Your task to perform on an android device: Install the Yahoo app Image 0: 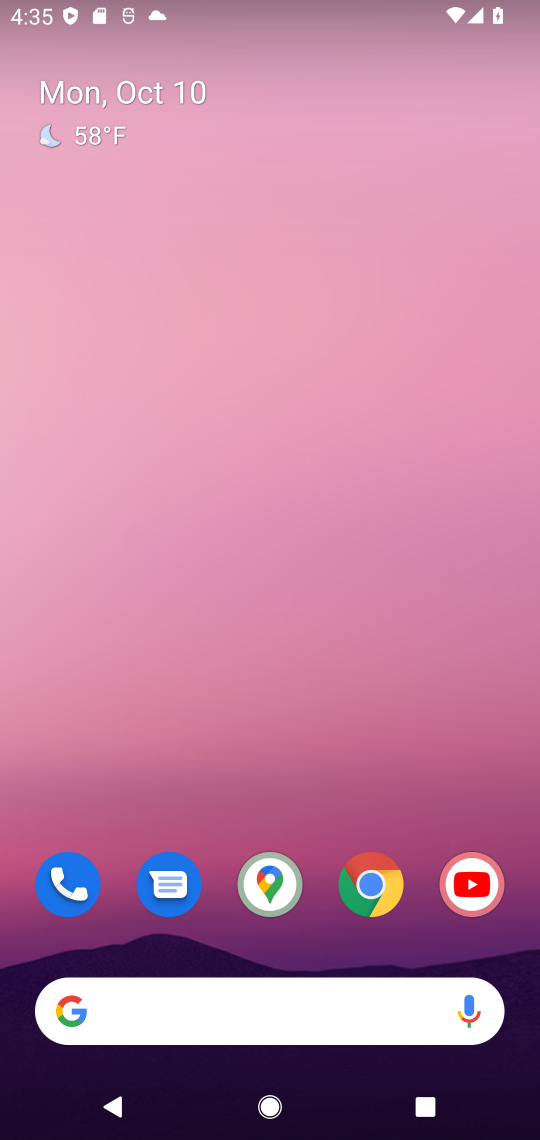
Step 0: drag from (415, 906) to (373, 100)
Your task to perform on an android device: Install the Yahoo app Image 1: 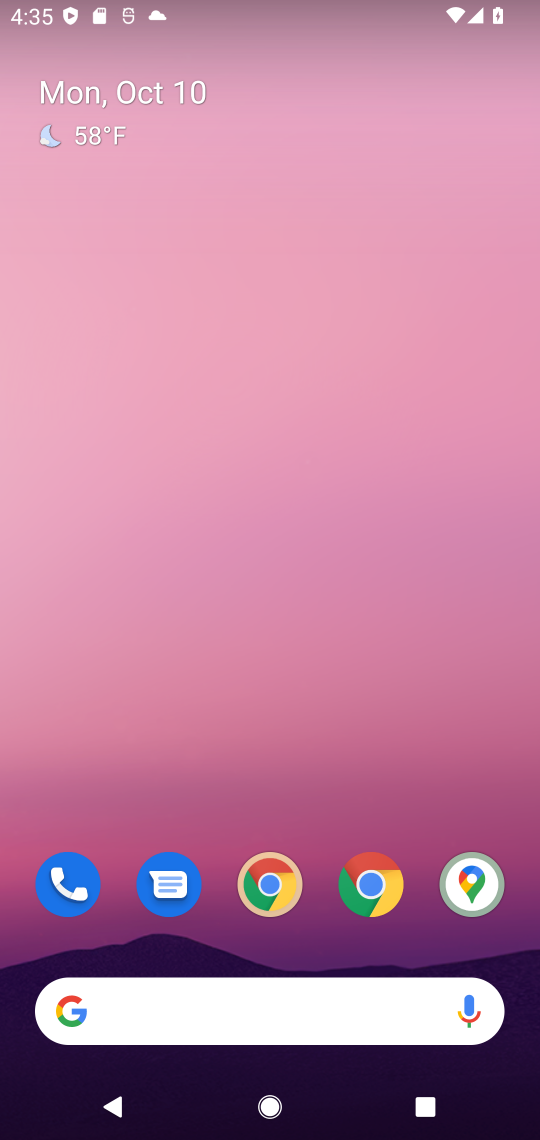
Step 1: drag from (444, 778) to (409, 280)
Your task to perform on an android device: Install the Yahoo app Image 2: 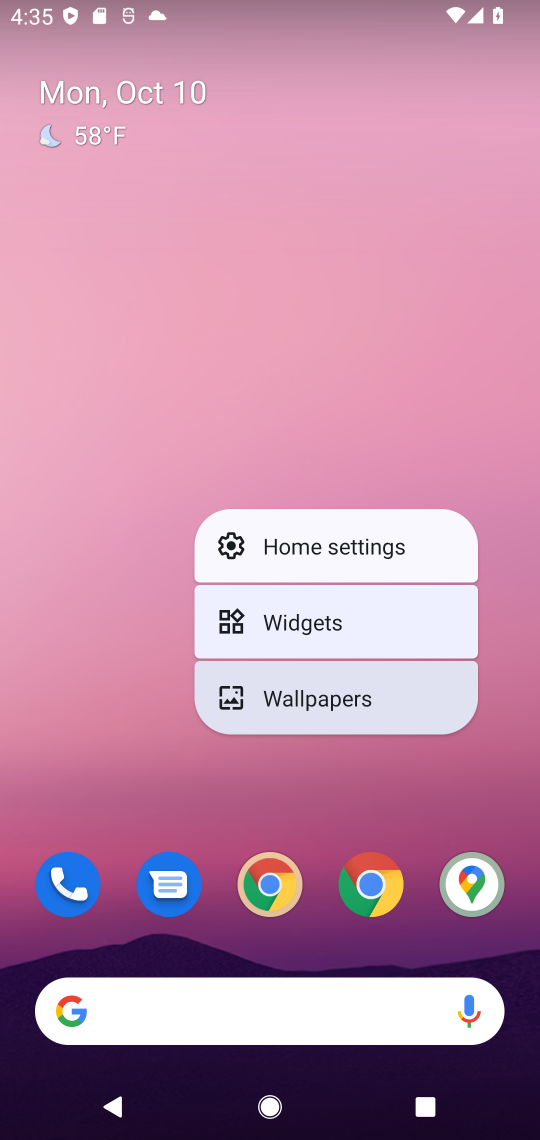
Step 2: click (501, 694)
Your task to perform on an android device: Install the Yahoo app Image 3: 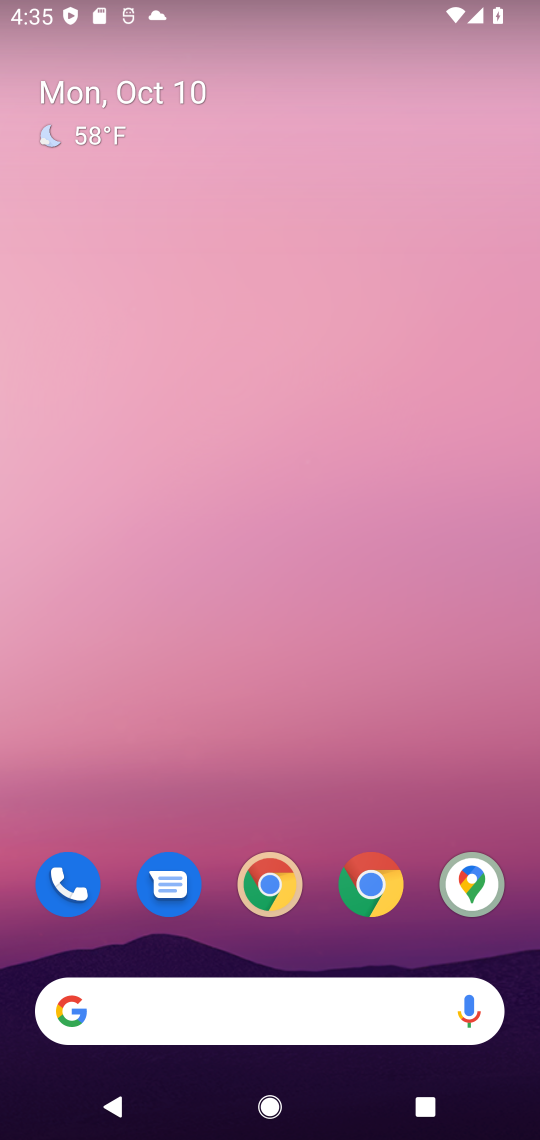
Step 3: drag from (497, 737) to (311, 58)
Your task to perform on an android device: Install the Yahoo app Image 4: 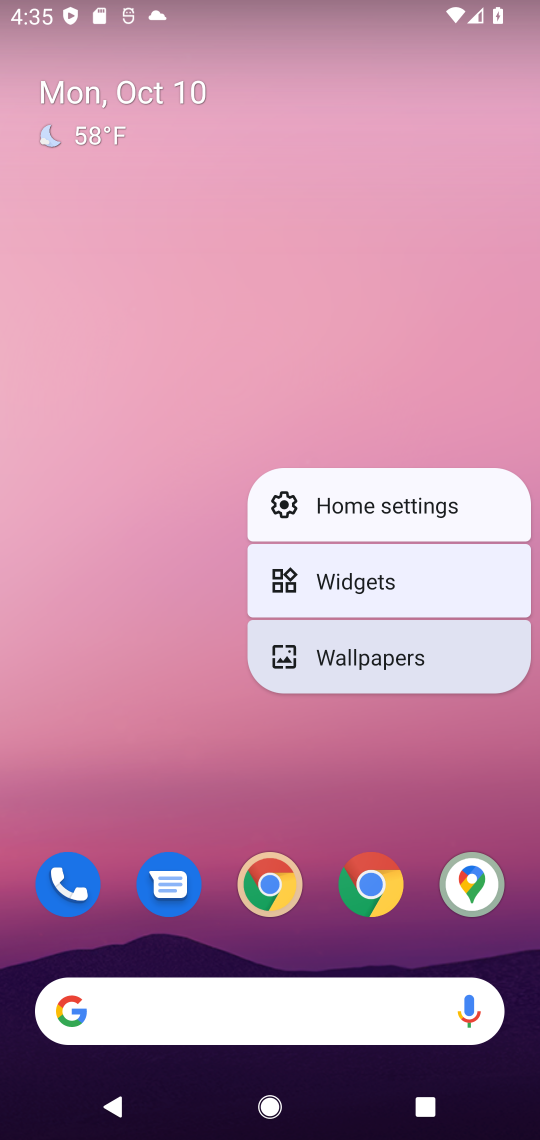
Step 4: click (77, 482)
Your task to perform on an android device: Install the Yahoo app Image 5: 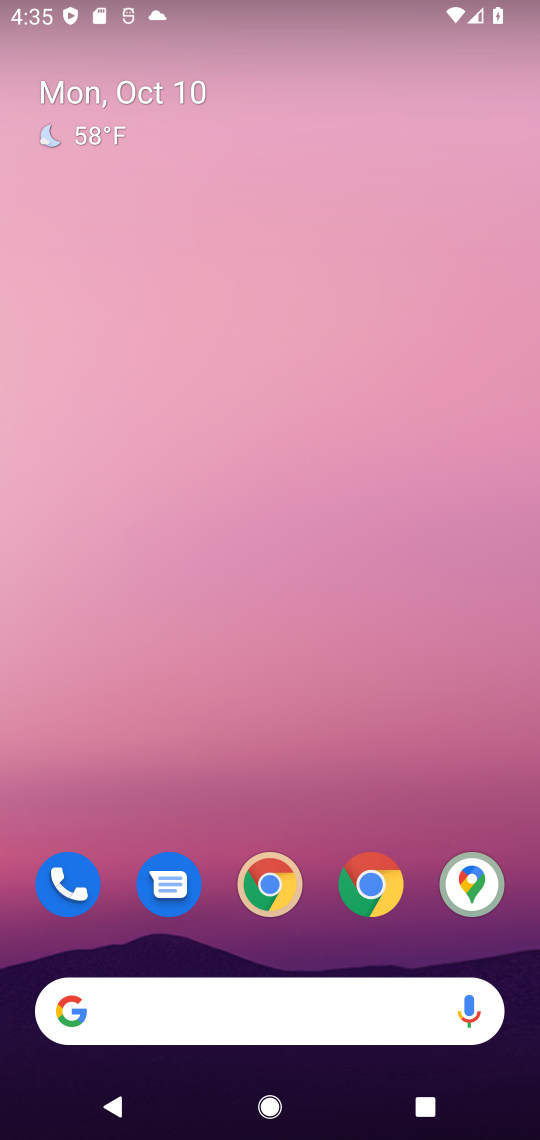
Step 5: drag from (225, 693) to (187, 245)
Your task to perform on an android device: Install the Yahoo app Image 6: 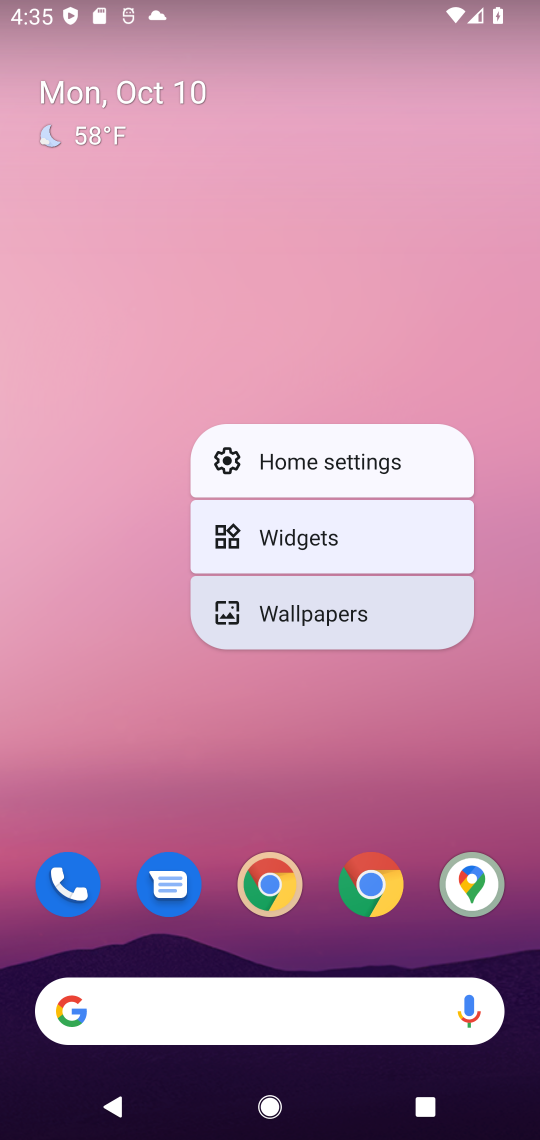
Step 6: click (118, 419)
Your task to perform on an android device: Install the Yahoo app Image 7: 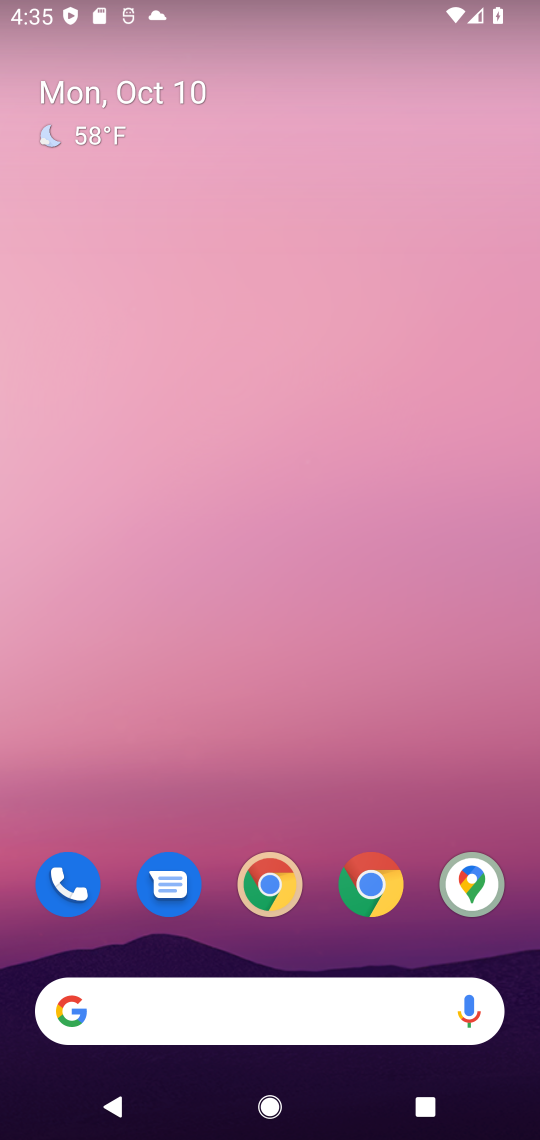
Step 7: drag from (256, 680) to (217, 30)
Your task to perform on an android device: Install the Yahoo app Image 8: 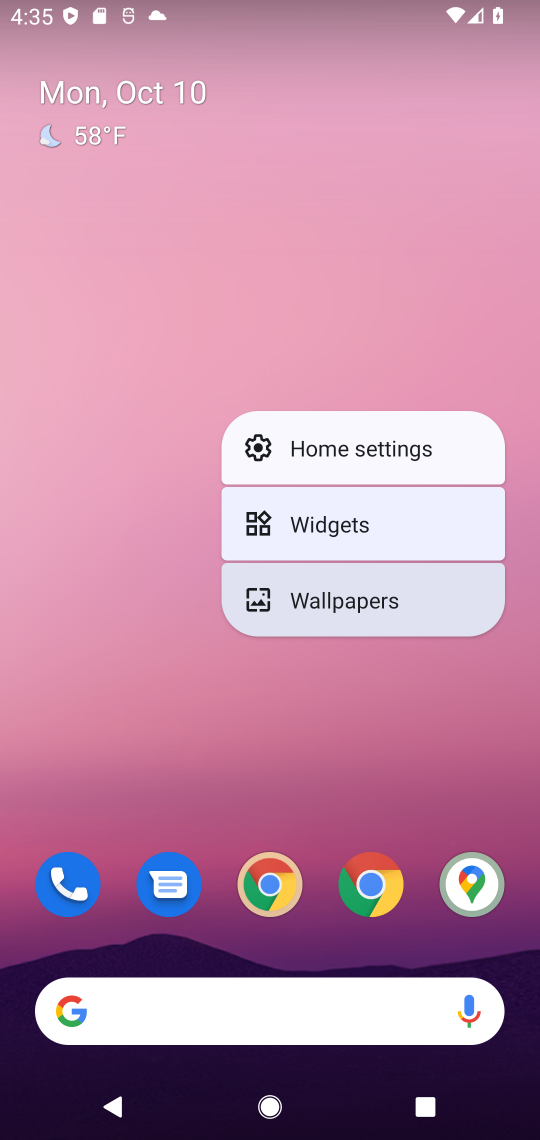
Step 8: click (114, 562)
Your task to perform on an android device: Install the Yahoo app Image 9: 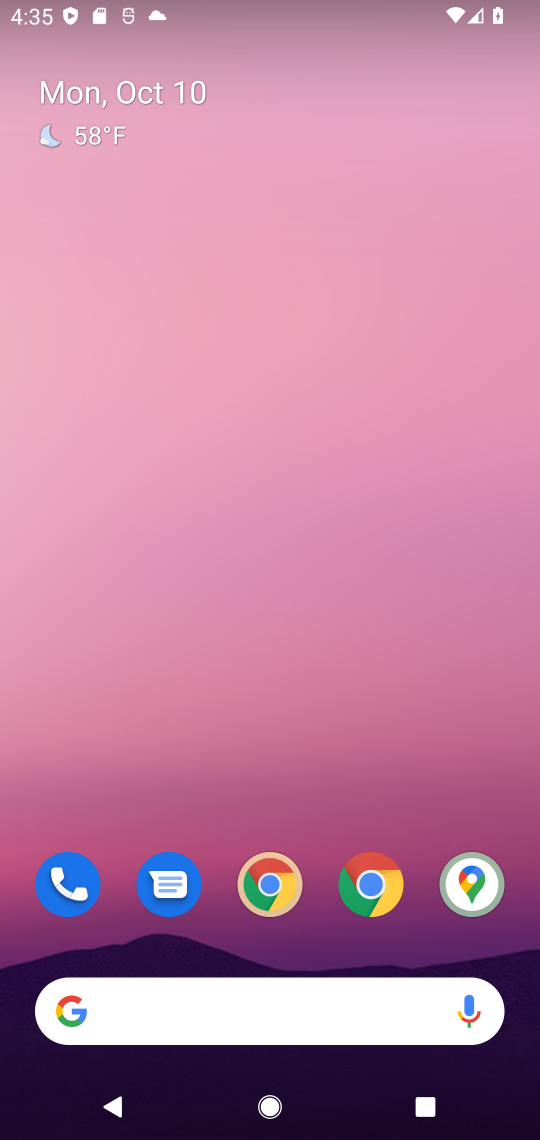
Step 9: drag from (417, 852) to (371, 219)
Your task to perform on an android device: Install the Yahoo app Image 10: 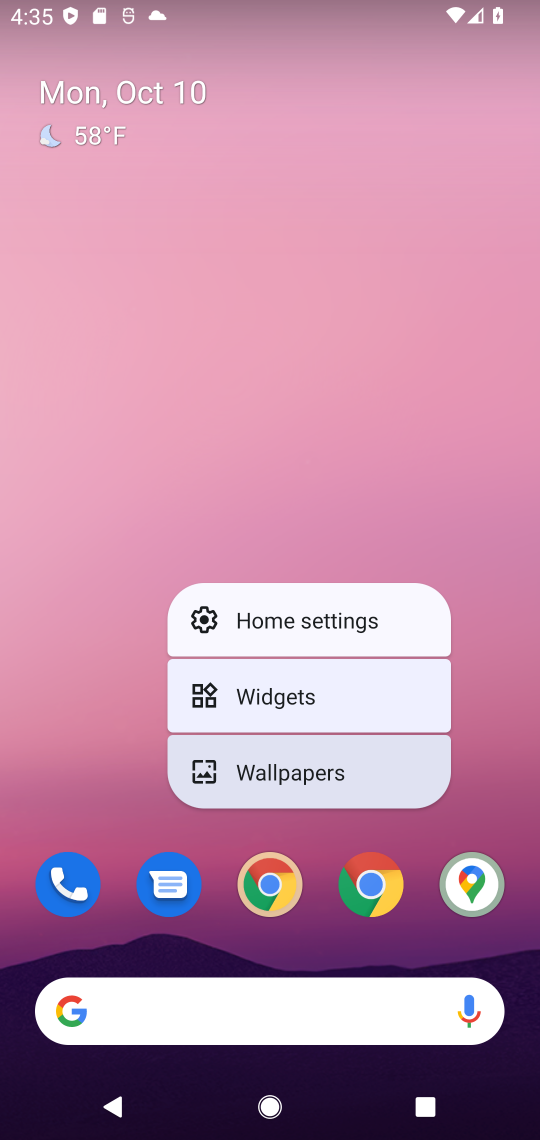
Step 10: click (510, 734)
Your task to perform on an android device: Install the Yahoo app Image 11: 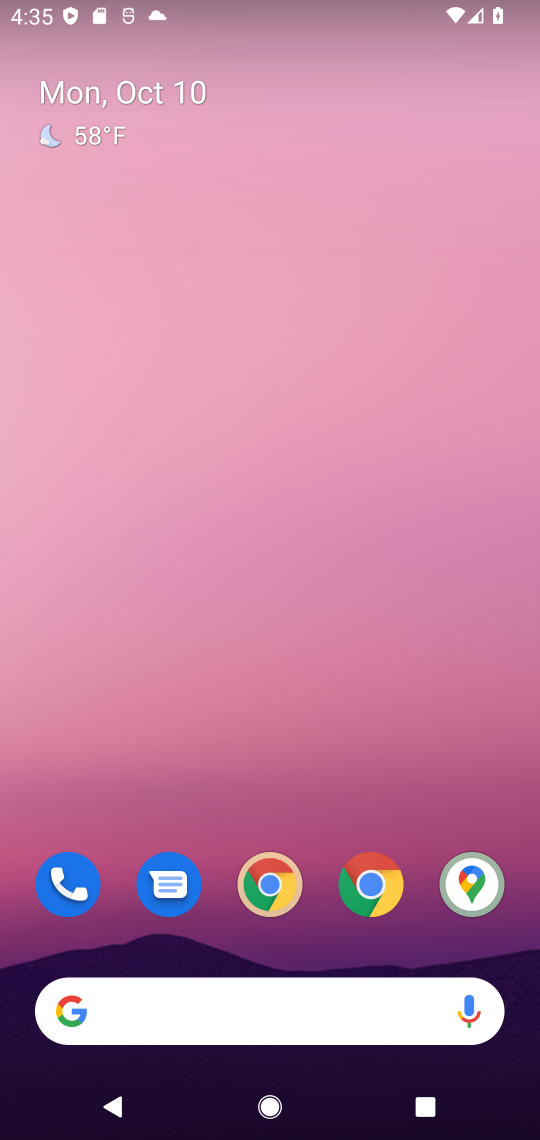
Step 11: click (433, 819)
Your task to perform on an android device: Install the Yahoo app Image 12: 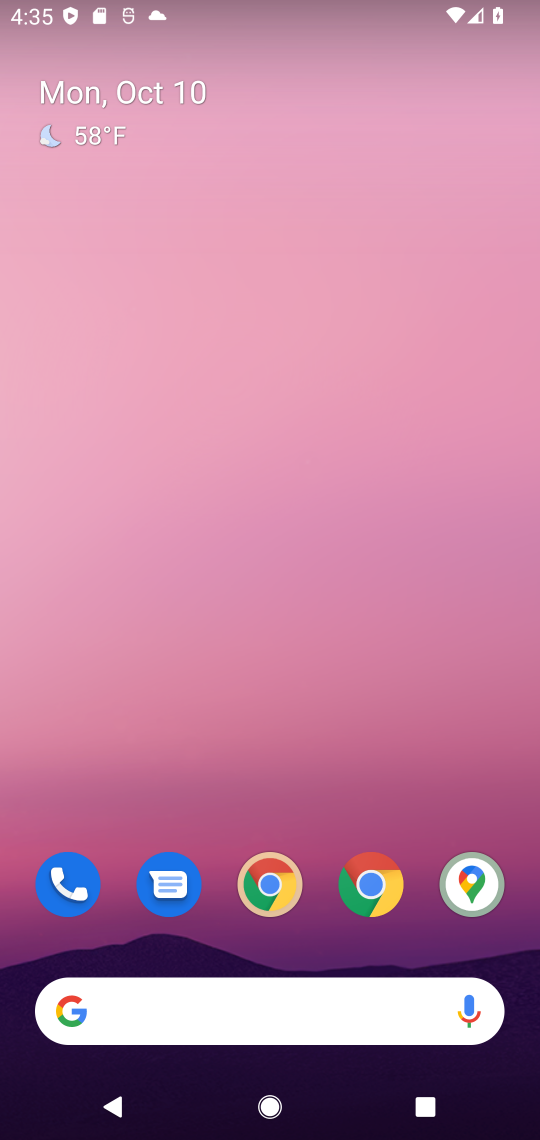
Step 12: drag from (433, 819) to (291, 7)
Your task to perform on an android device: Install the Yahoo app Image 13: 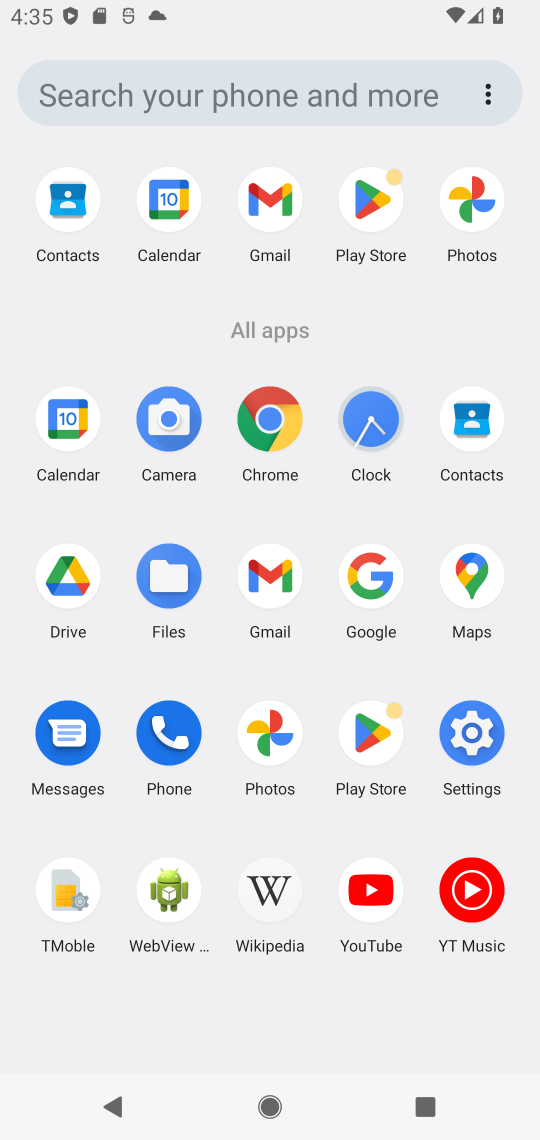
Step 13: click (359, 187)
Your task to perform on an android device: Install the Yahoo app Image 14: 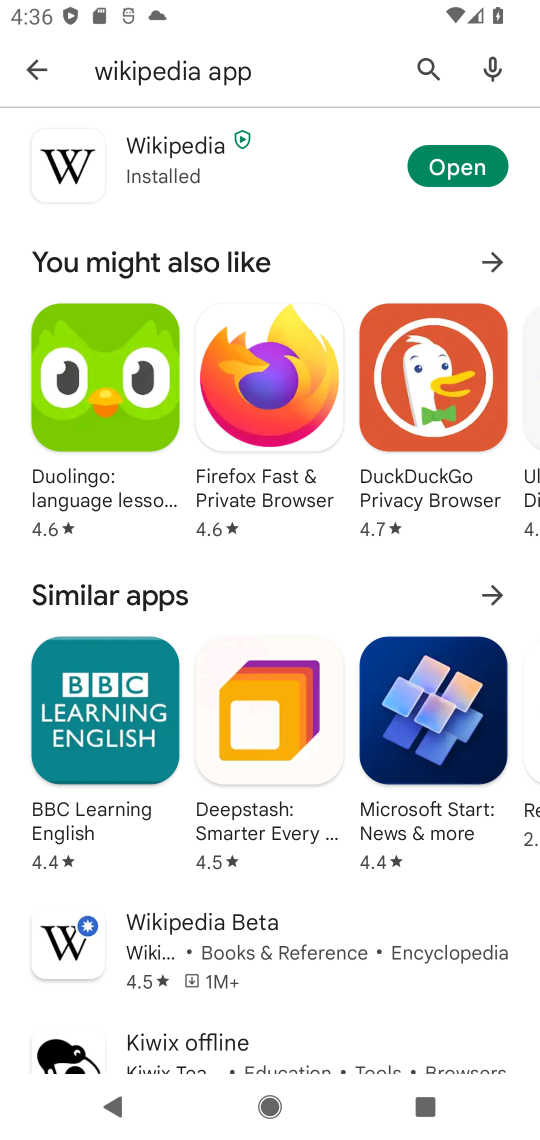
Step 14: click (415, 66)
Your task to perform on an android device: Install the Yahoo app Image 15: 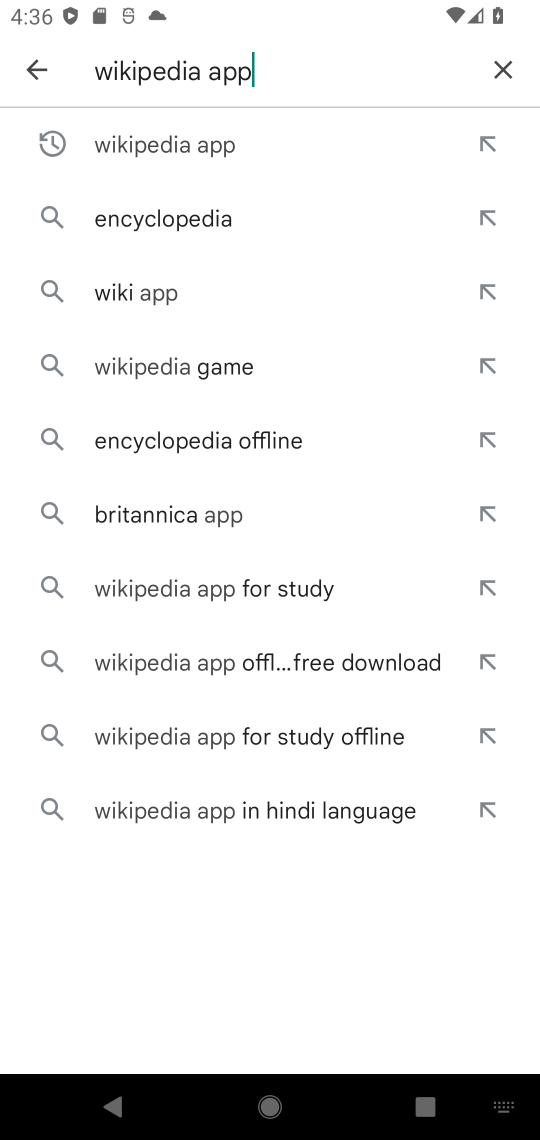
Step 15: click (484, 76)
Your task to perform on an android device: Install the Yahoo app Image 16: 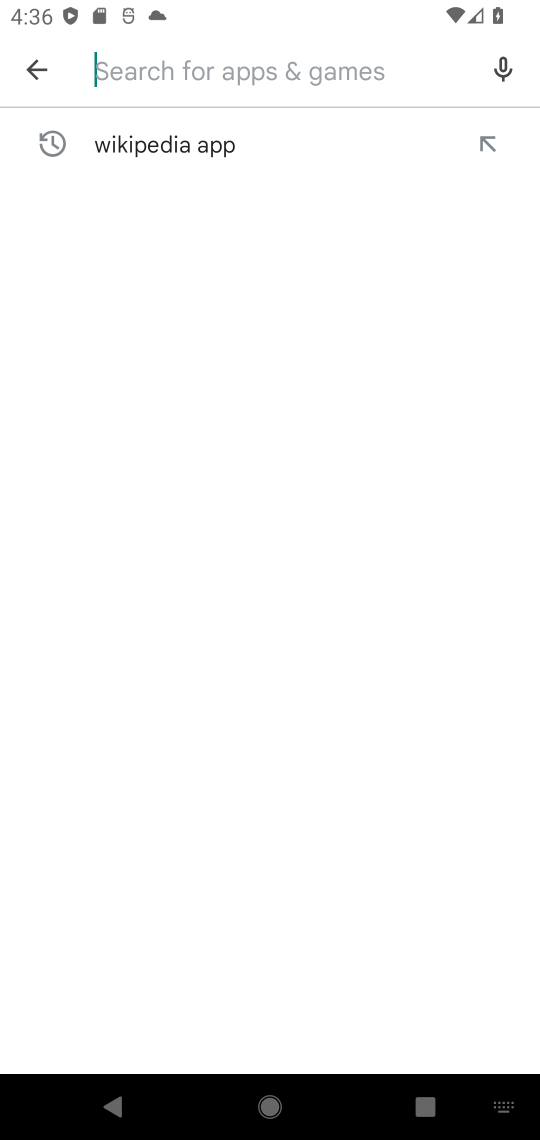
Step 16: type "yahoo app"
Your task to perform on an android device: Install the Yahoo app Image 17: 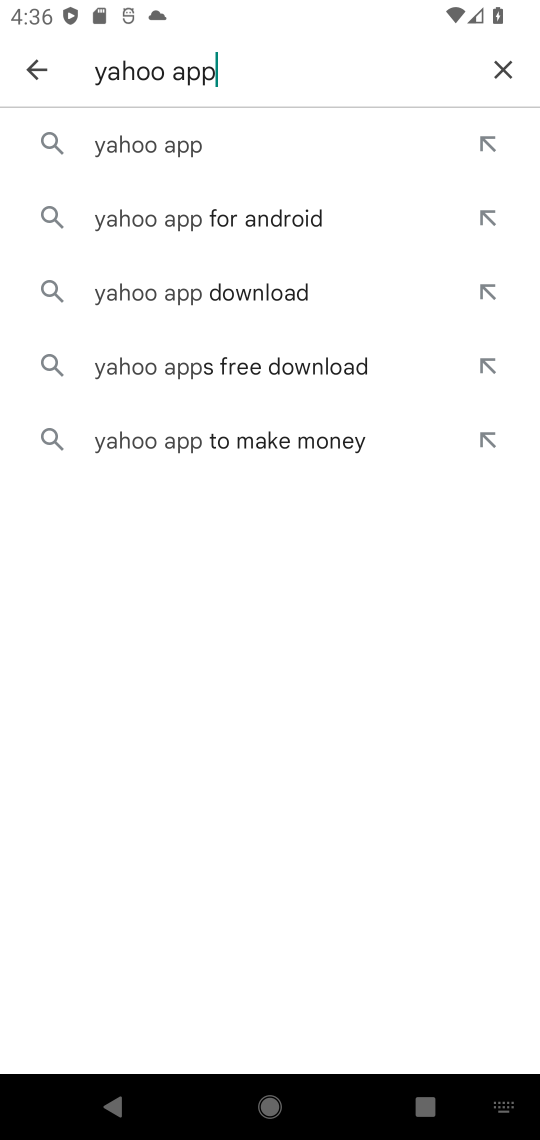
Step 17: click (187, 154)
Your task to perform on an android device: Install the Yahoo app Image 18: 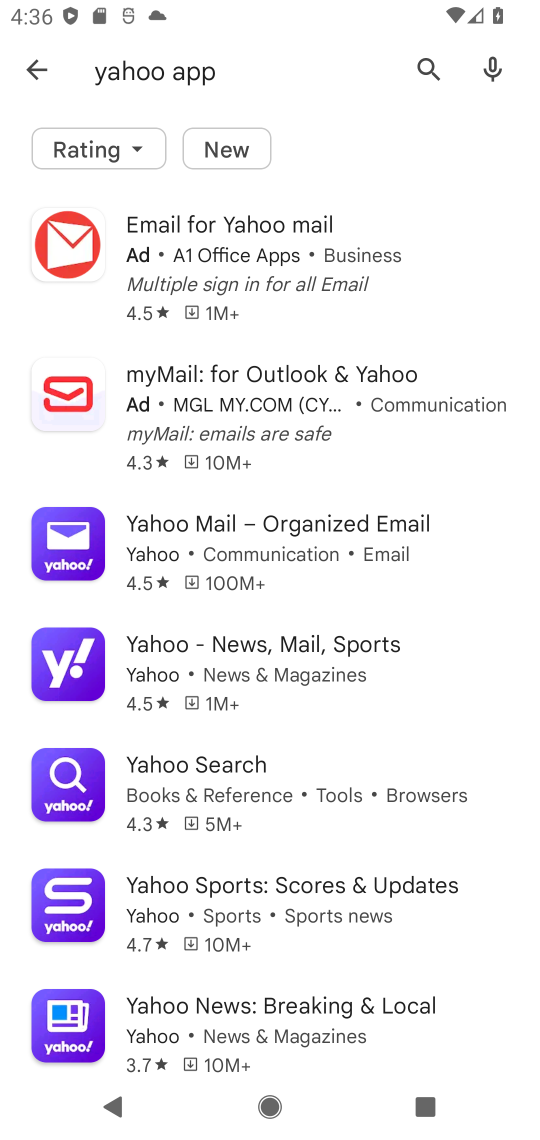
Step 18: click (140, 668)
Your task to perform on an android device: Install the Yahoo app Image 19: 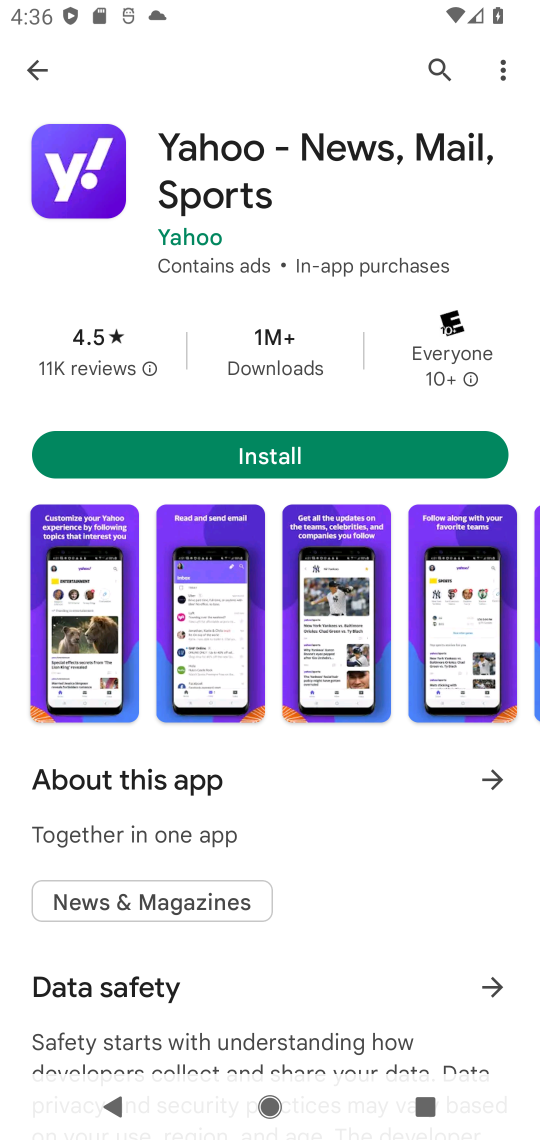
Step 19: click (277, 449)
Your task to perform on an android device: Install the Yahoo app Image 20: 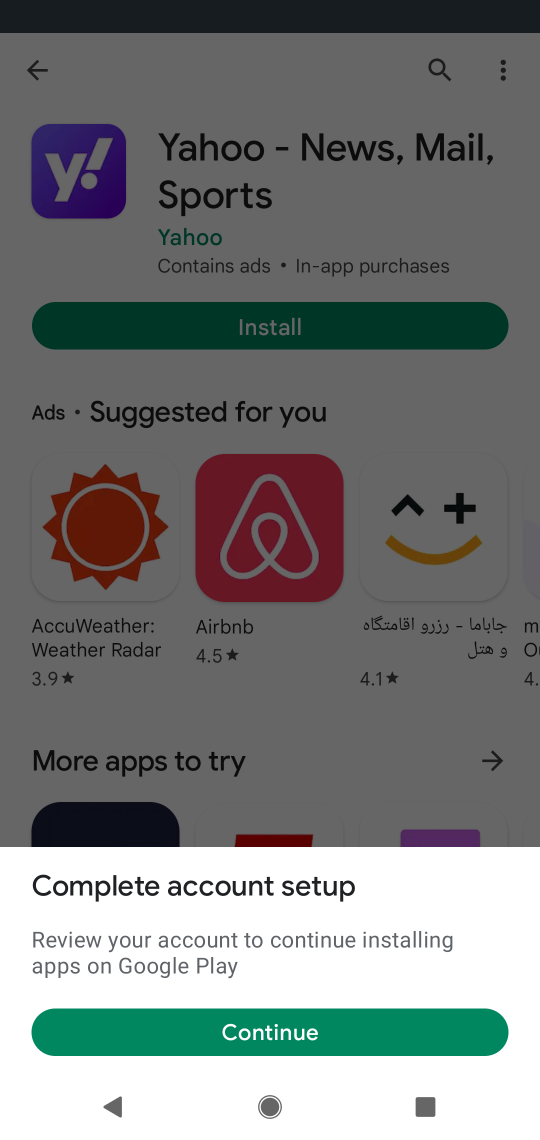
Step 20: click (270, 1047)
Your task to perform on an android device: Install the Yahoo app Image 21: 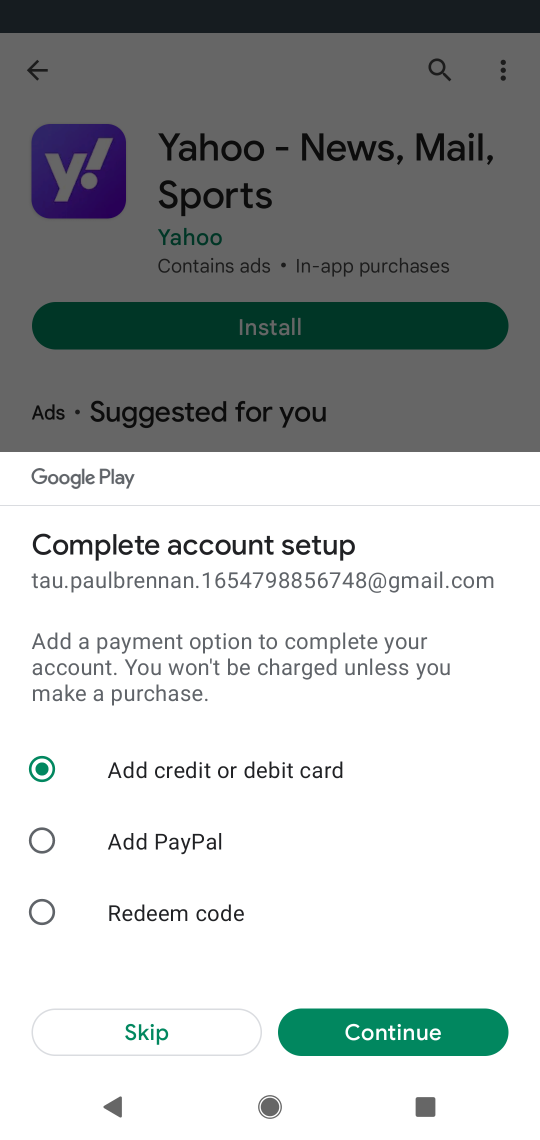
Step 21: click (134, 1022)
Your task to perform on an android device: Install the Yahoo app Image 22: 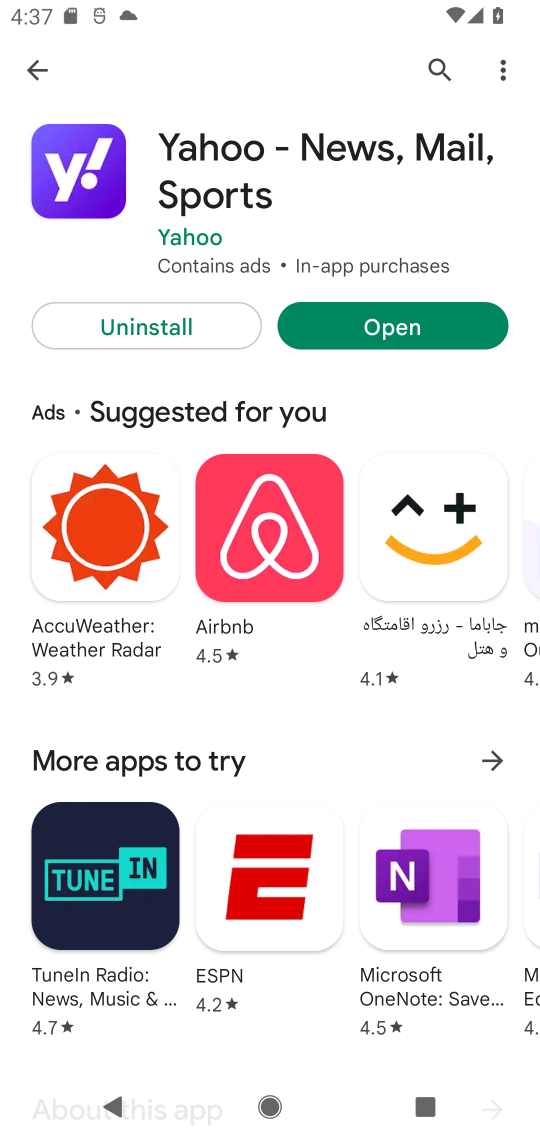
Step 22: task complete